Your task to perform on an android device: Go to Google maps Image 0: 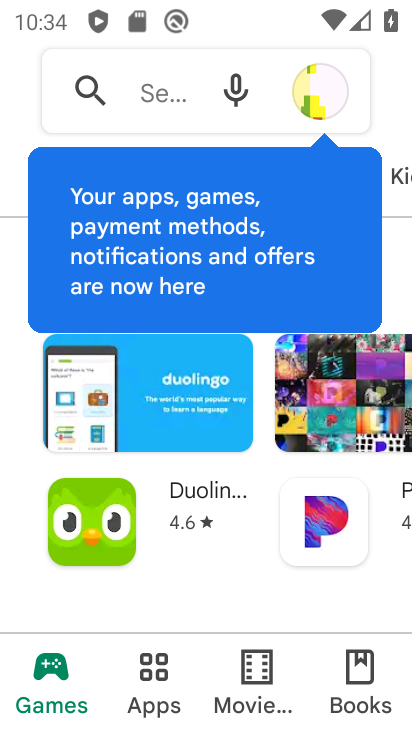
Step 0: press back button
Your task to perform on an android device: Go to Google maps Image 1: 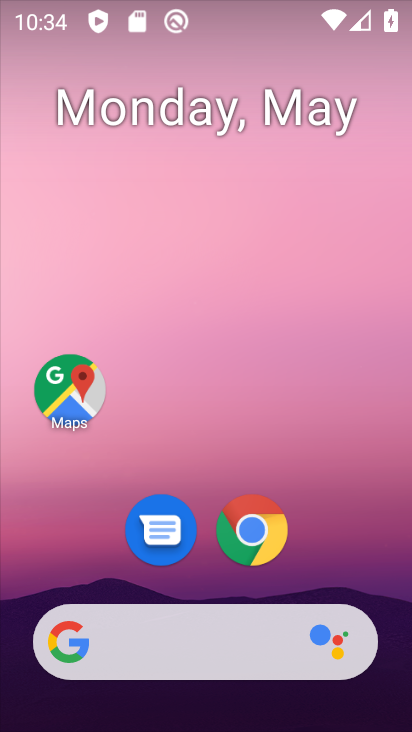
Step 1: click (68, 394)
Your task to perform on an android device: Go to Google maps Image 2: 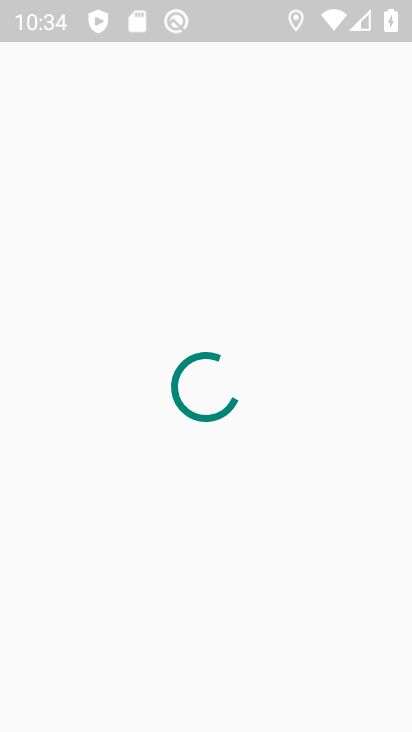
Step 2: click (359, 588)
Your task to perform on an android device: Go to Google maps Image 3: 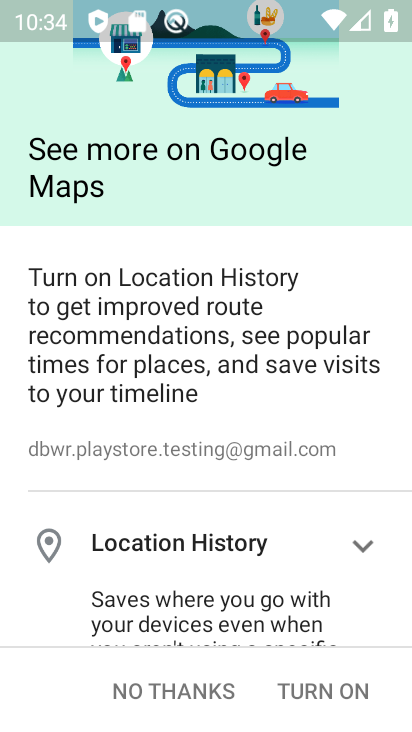
Step 3: click (192, 684)
Your task to perform on an android device: Go to Google maps Image 4: 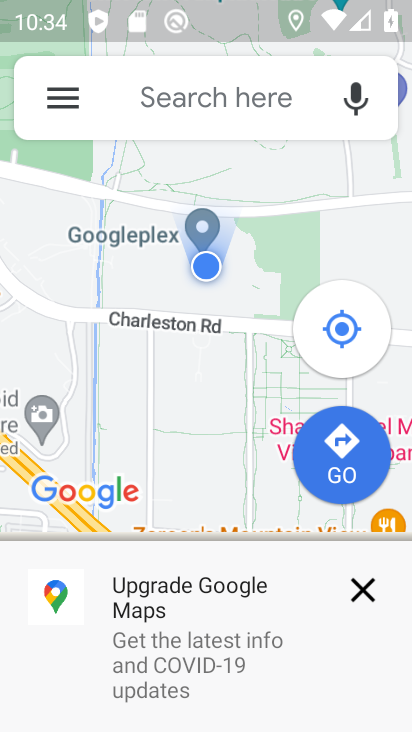
Step 4: task complete